Your task to perform on an android device: Go to Amazon Image 0: 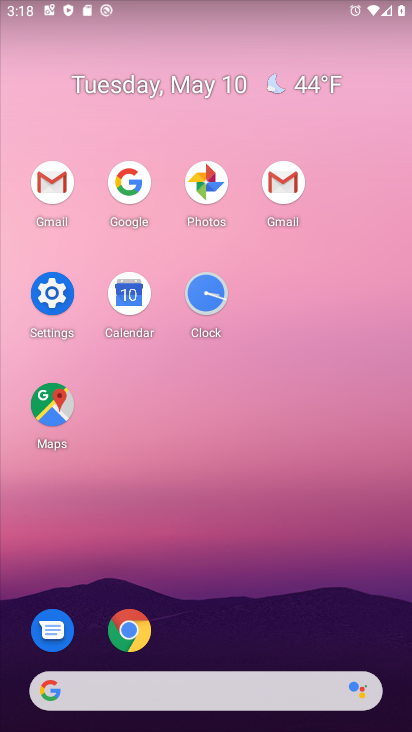
Step 0: click (129, 632)
Your task to perform on an android device: Go to Amazon Image 1: 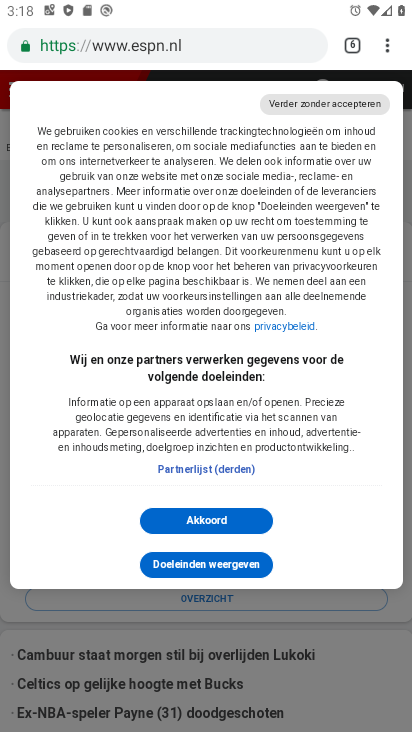
Step 1: click (358, 46)
Your task to perform on an android device: Go to Amazon Image 2: 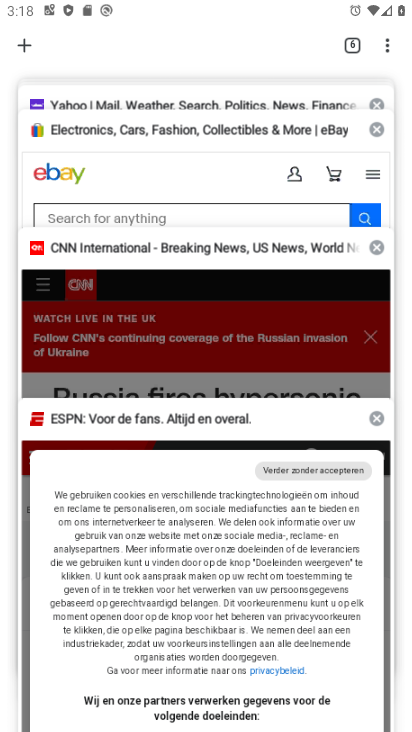
Step 2: drag from (195, 145) to (178, 480)
Your task to perform on an android device: Go to Amazon Image 3: 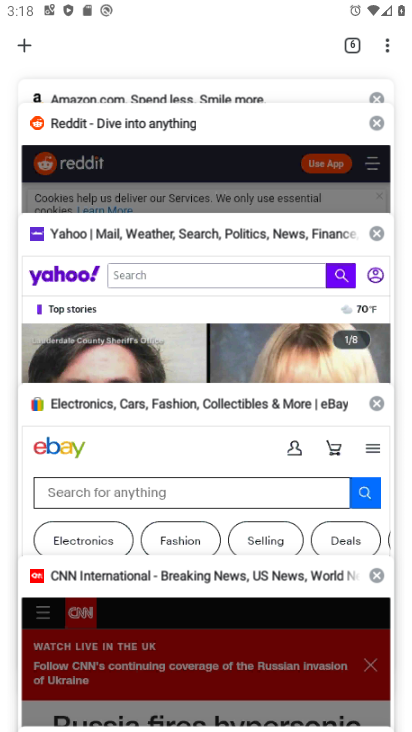
Step 3: drag from (146, 149) to (123, 437)
Your task to perform on an android device: Go to Amazon Image 4: 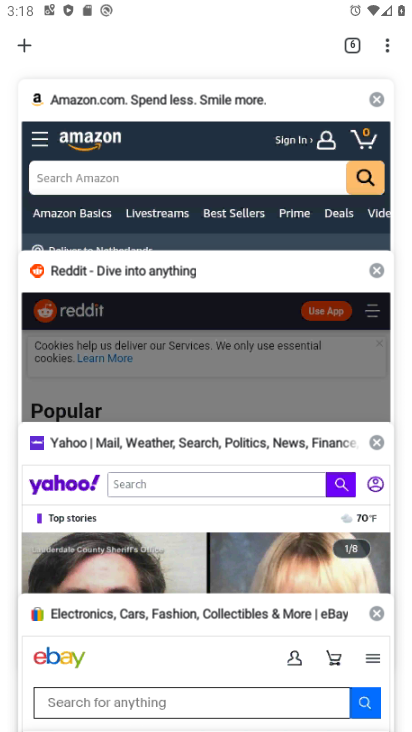
Step 4: click (144, 172)
Your task to perform on an android device: Go to Amazon Image 5: 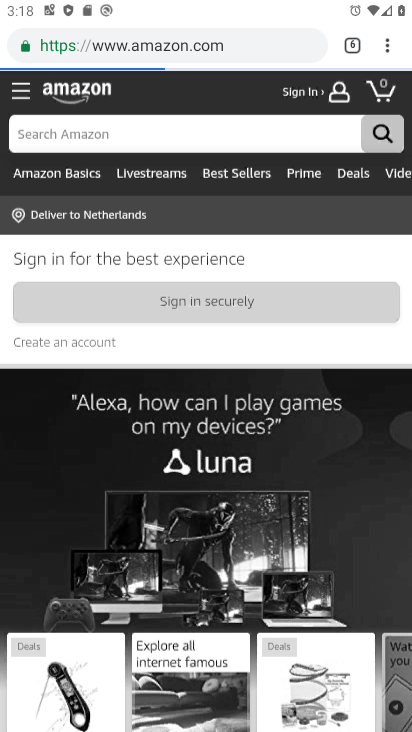
Step 5: task complete